Your task to perform on an android device: open app "Reddit" (install if not already installed) and enter user name: "issues@yahoo.com" and password: "belt" Image 0: 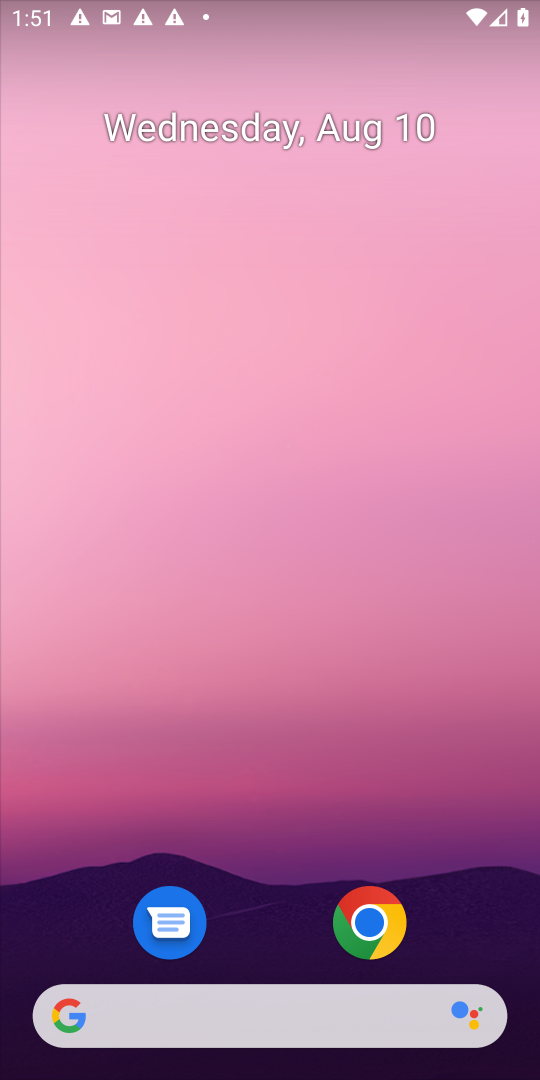
Step 0: drag from (243, 906) to (284, 20)
Your task to perform on an android device: open app "Reddit" (install if not already installed) and enter user name: "issues@yahoo.com" and password: "belt" Image 1: 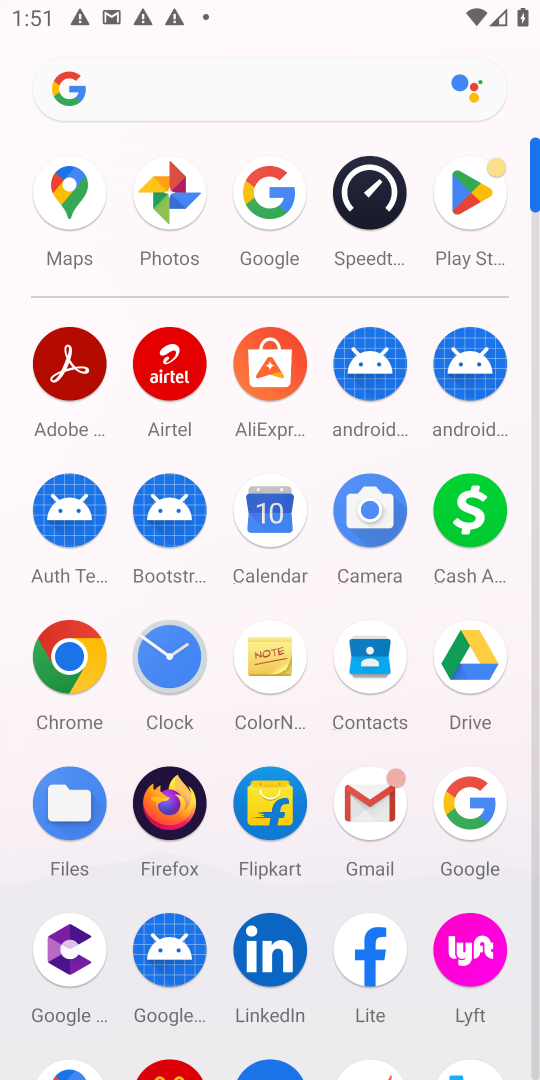
Step 1: click (66, 668)
Your task to perform on an android device: open app "Reddit" (install if not already installed) and enter user name: "issues@yahoo.com" and password: "belt" Image 2: 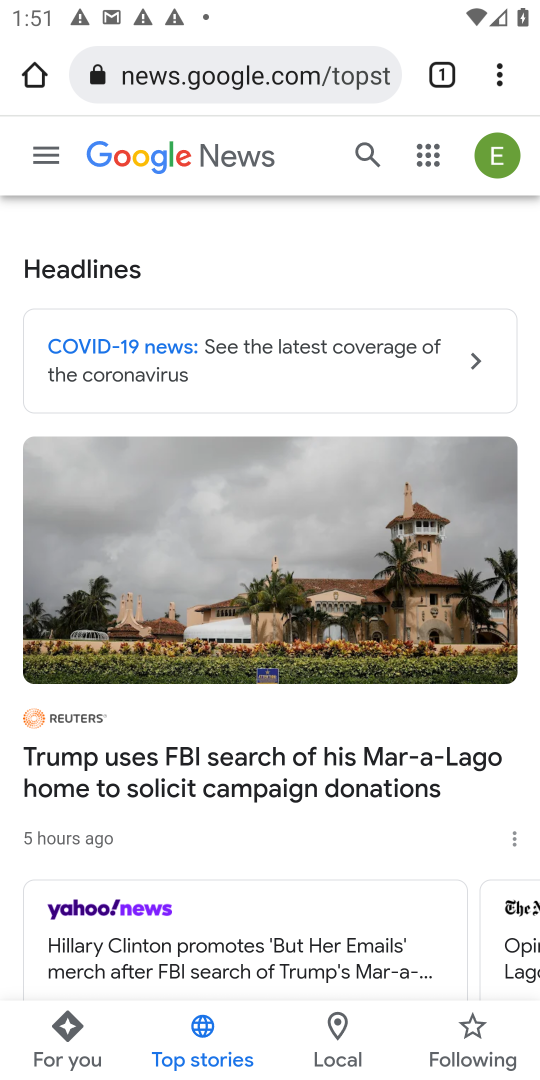
Step 2: click (255, 72)
Your task to perform on an android device: open app "Reddit" (install if not already installed) and enter user name: "issues@yahoo.com" and password: "belt" Image 3: 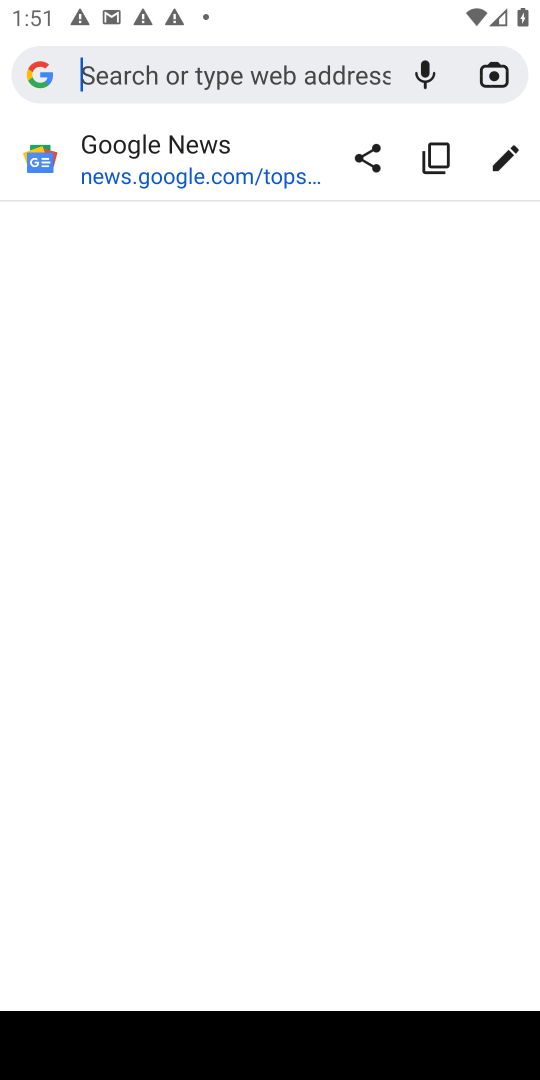
Step 3: type "Reddit"
Your task to perform on an android device: open app "Reddit" (install if not already installed) and enter user name: "issues@yahoo.com" and password: "belt" Image 4: 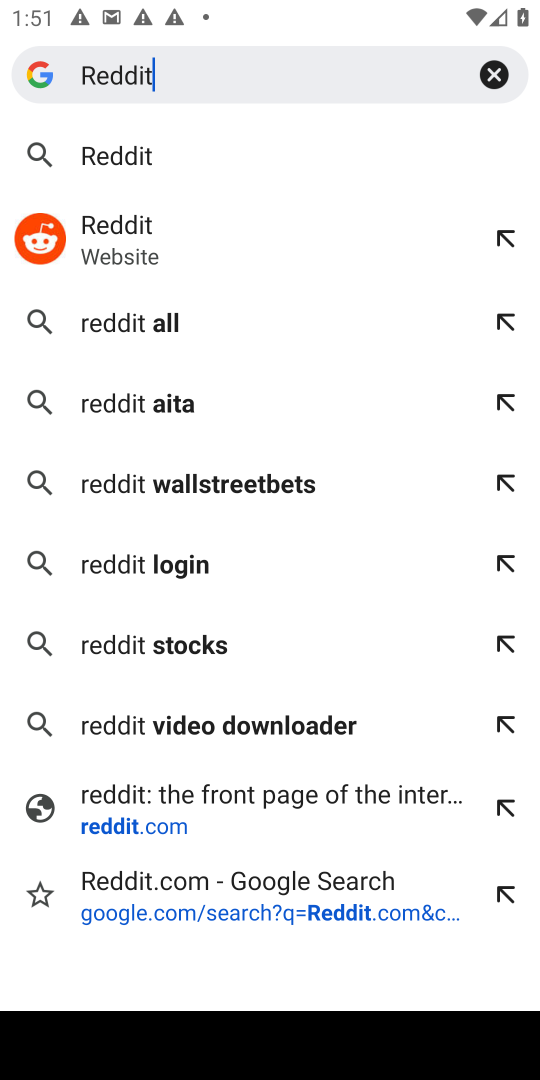
Step 4: click (132, 154)
Your task to perform on an android device: open app "Reddit" (install if not already installed) and enter user name: "issues@yahoo.com" and password: "belt" Image 5: 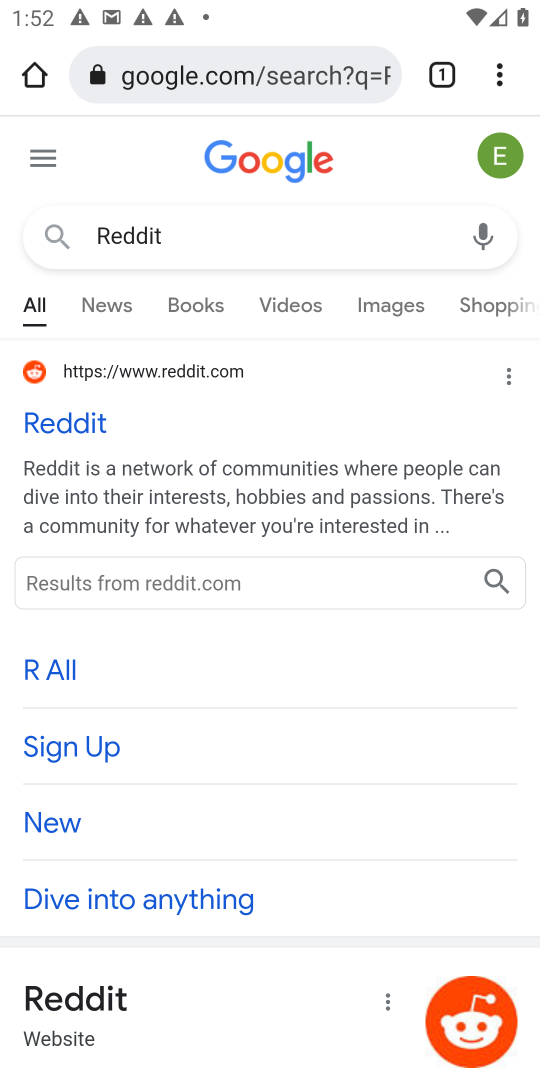
Step 5: task complete